Your task to perform on an android device: change the clock display to analog Image 0: 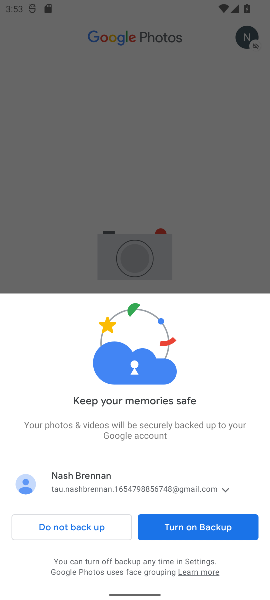
Step 0: press home button
Your task to perform on an android device: change the clock display to analog Image 1: 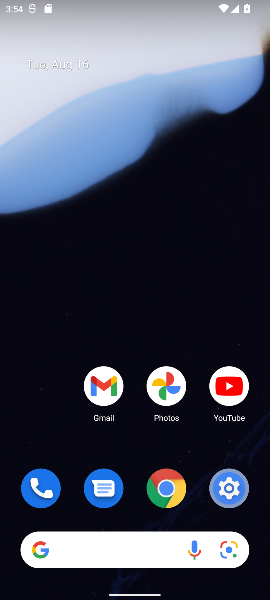
Step 1: task complete